Your task to perform on an android device: turn off priority inbox in the gmail app Image 0: 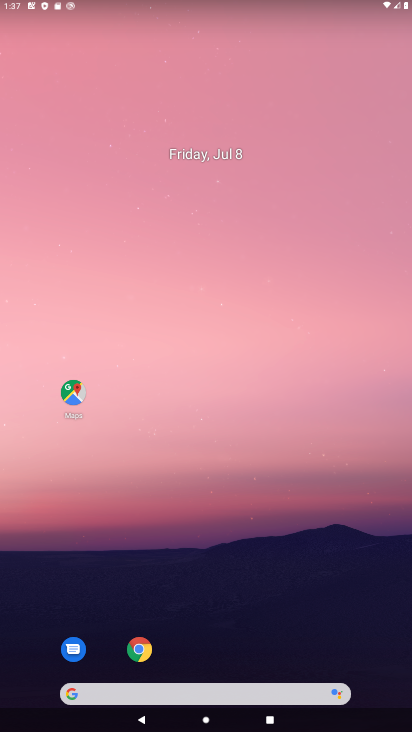
Step 0: drag from (93, 506) to (333, 45)
Your task to perform on an android device: turn off priority inbox in the gmail app Image 1: 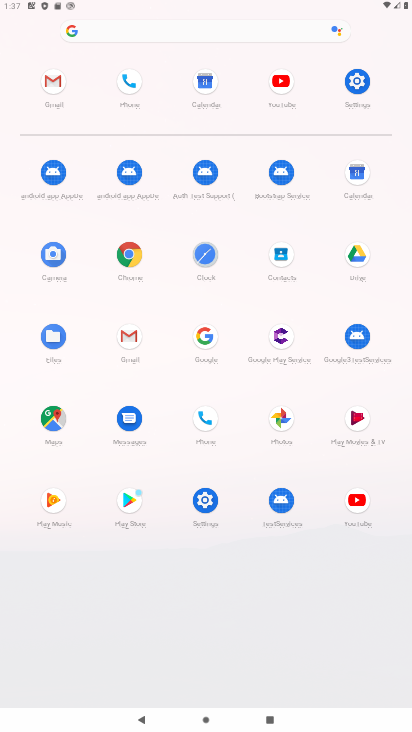
Step 1: click (134, 347)
Your task to perform on an android device: turn off priority inbox in the gmail app Image 2: 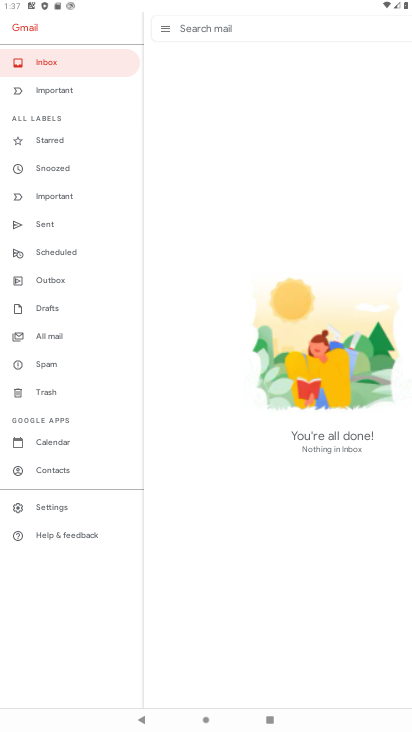
Step 2: click (55, 511)
Your task to perform on an android device: turn off priority inbox in the gmail app Image 3: 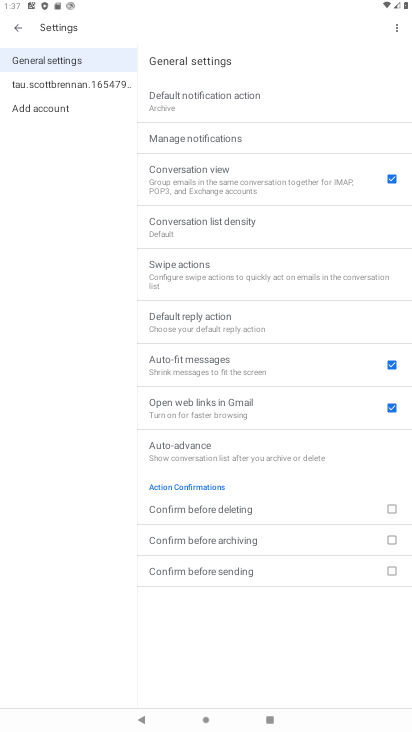
Step 3: click (47, 88)
Your task to perform on an android device: turn off priority inbox in the gmail app Image 4: 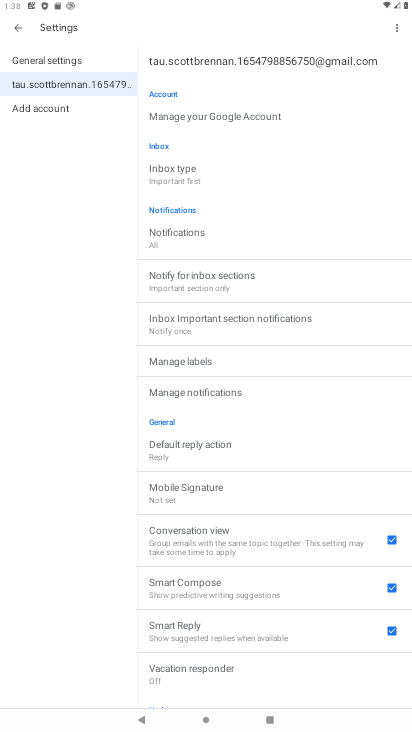
Step 4: click (181, 169)
Your task to perform on an android device: turn off priority inbox in the gmail app Image 5: 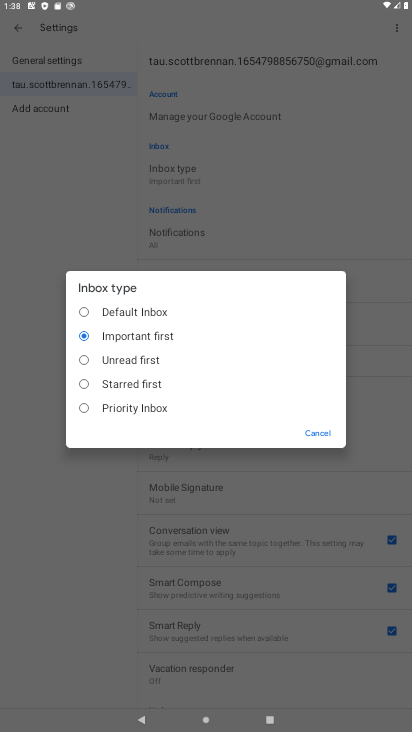
Step 5: click (117, 408)
Your task to perform on an android device: turn off priority inbox in the gmail app Image 6: 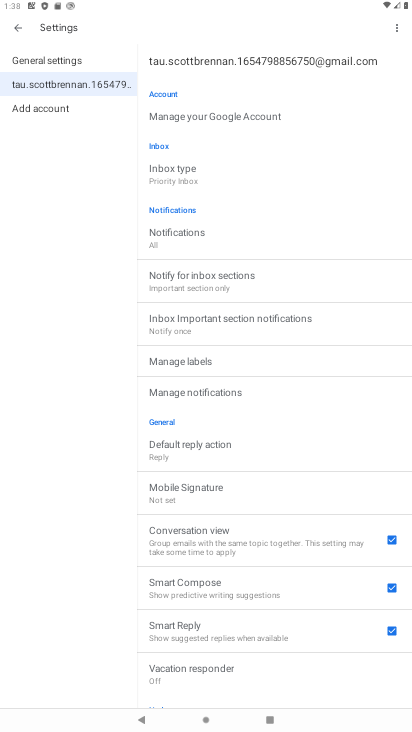
Step 6: click (198, 172)
Your task to perform on an android device: turn off priority inbox in the gmail app Image 7: 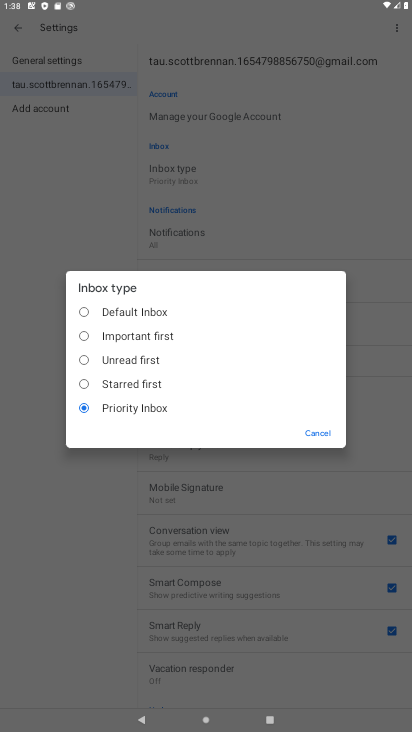
Step 7: click (77, 378)
Your task to perform on an android device: turn off priority inbox in the gmail app Image 8: 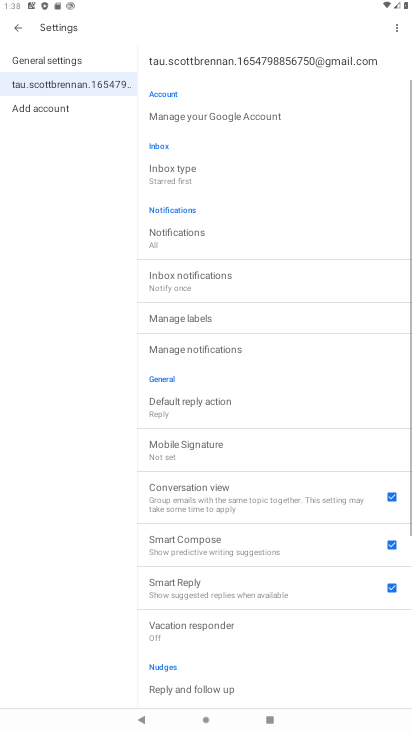
Step 8: click (76, 310)
Your task to perform on an android device: turn off priority inbox in the gmail app Image 9: 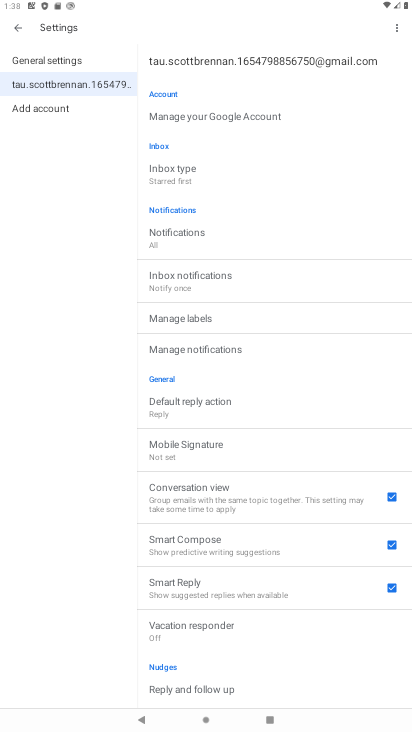
Step 9: task complete